Your task to perform on an android device: change the clock display to digital Image 0: 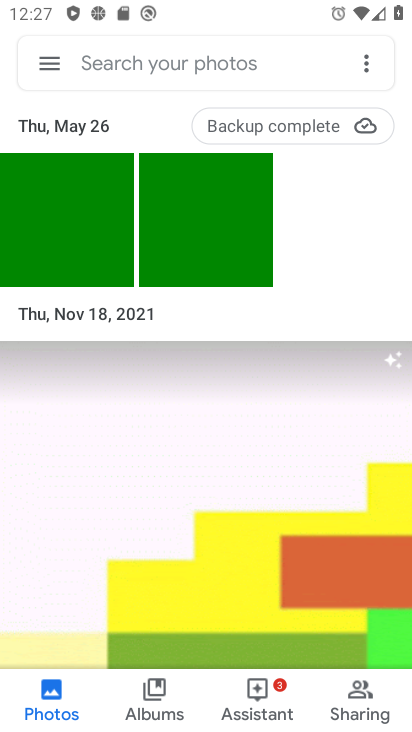
Step 0: press home button
Your task to perform on an android device: change the clock display to digital Image 1: 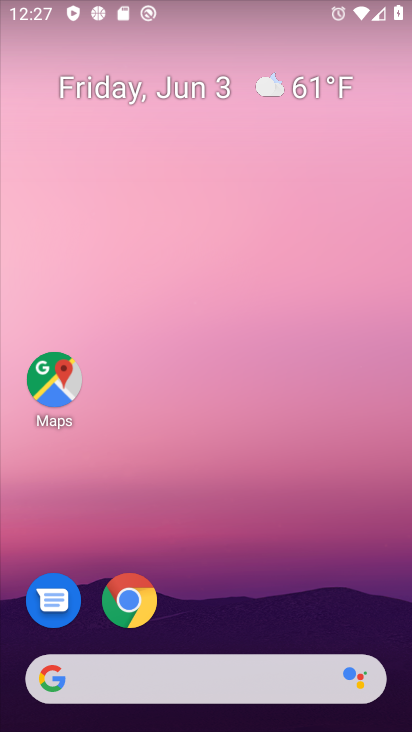
Step 1: drag from (281, 568) to (198, 205)
Your task to perform on an android device: change the clock display to digital Image 2: 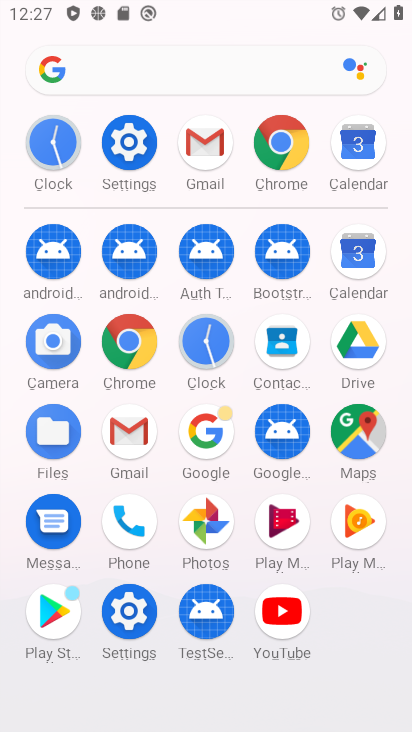
Step 2: click (216, 354)
Your task to perform on an android device: change the clock display to digital Image 3: 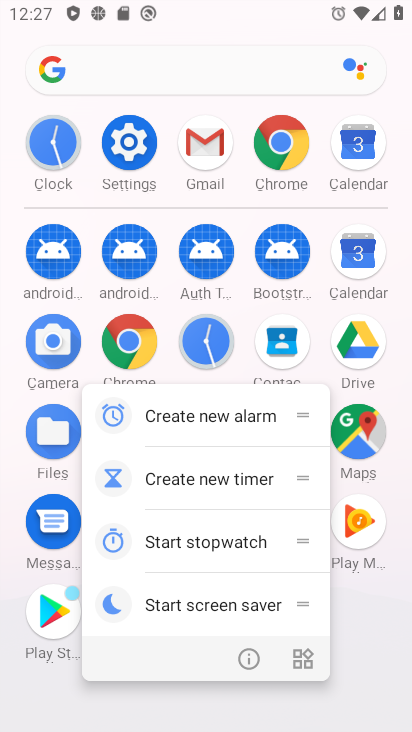
Step 3: click (216, 353)
Your task to perform on an android device: change the clock display to digital Image 4: 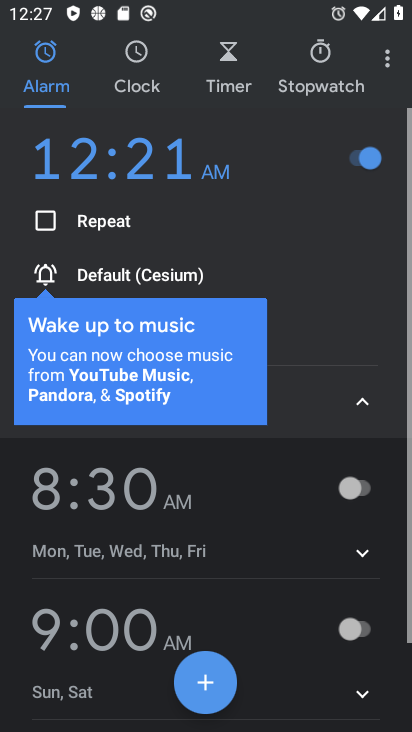
Step 4: click (387, 57)
Your task to perform on an android device: change the clock display to digital Image 5: 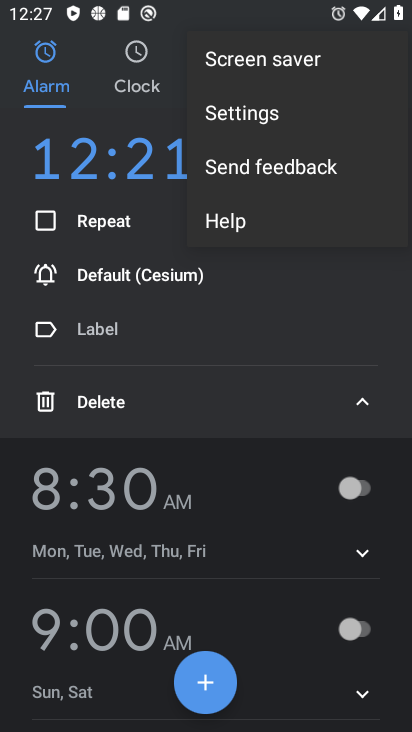
Step 5: click (244, 110)
Your task to perform on an android device: change the clock display to digital Image 6: 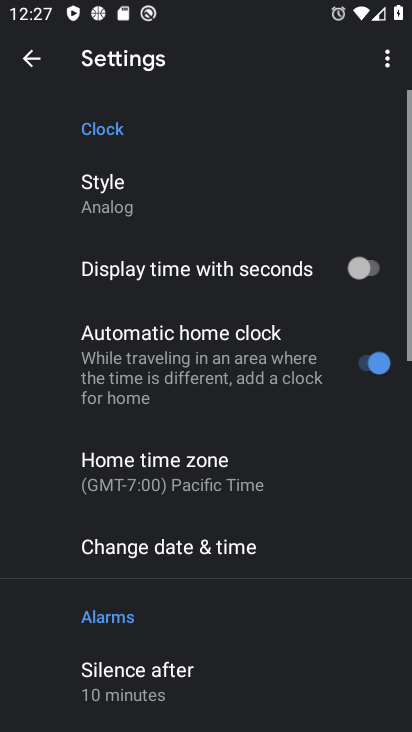
Step 6: click (109, 187)
Your task to perform on an android device: change the clock display to digital Image 7: 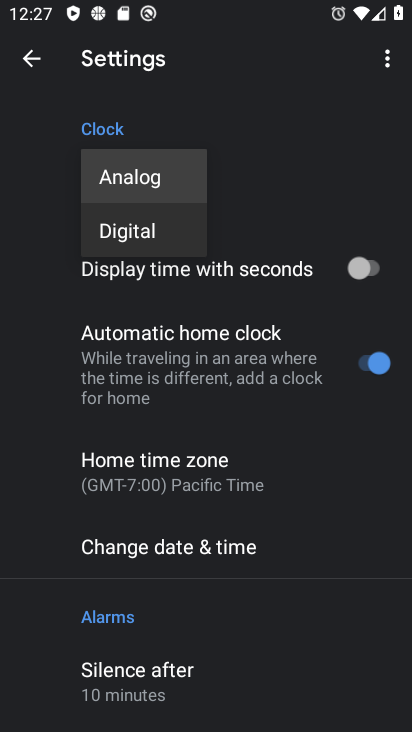
Step 7: click (128, 234)
Your task to perform on an android device: change the clock display to digital Image 8: 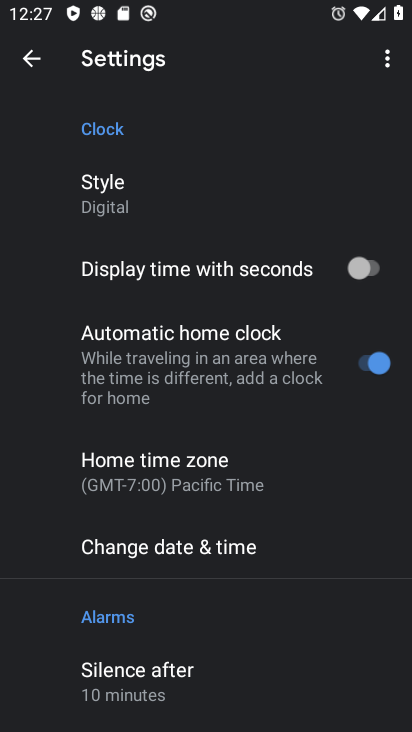
Step 8: task complete